Your task to perform on an android device: find snoozed emails in the gmail app Image 0: 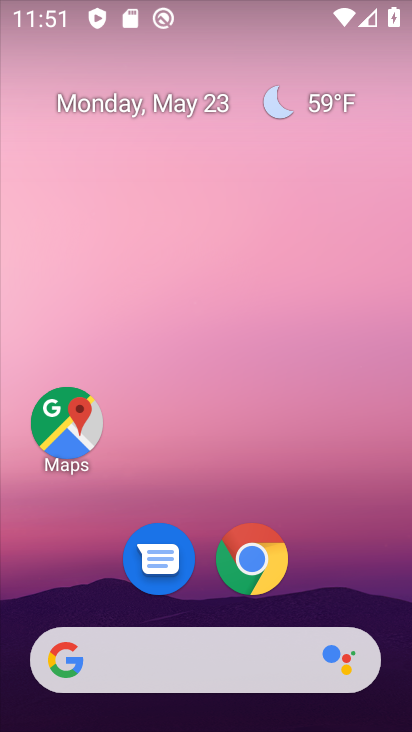
Step 0: drag from (359, 588) to (272, 55)
Your task to perform on an android device: find snoozed emails in the gmail app Image 1: 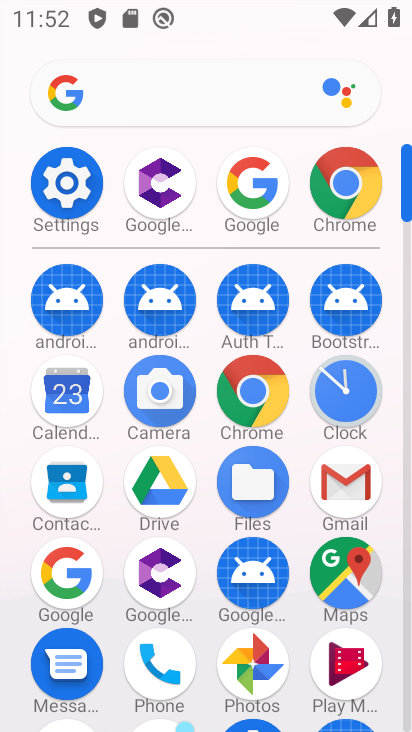
Step 1: click (336, 503)
Your task to perform on an android device: find snoozed emails in the gmail app Image 2: 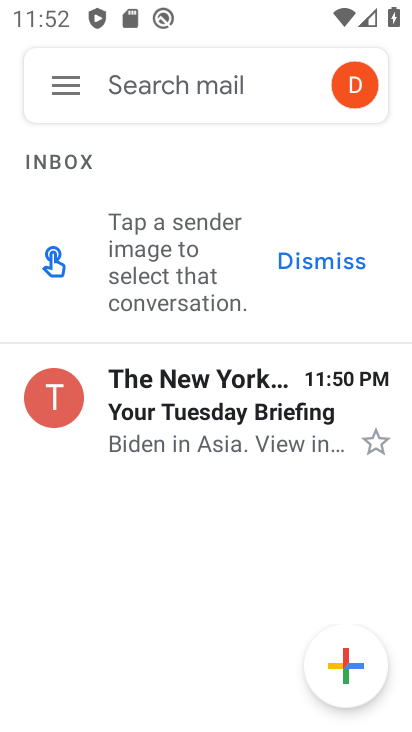
Step 2: click (63, 77)
Your task to perform on an android device: find snoozed emails in the gmail app Image 3: 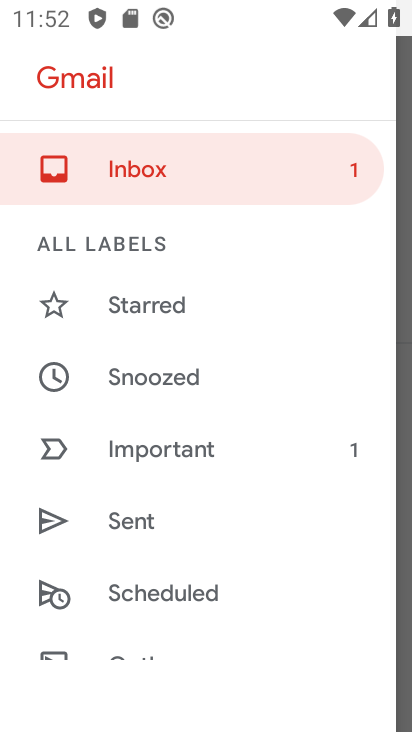
Step 3: drag from (144, 571) to (188, 438)
Your task to perform on an android device: find snoozed emails in the gmail app Image 4: 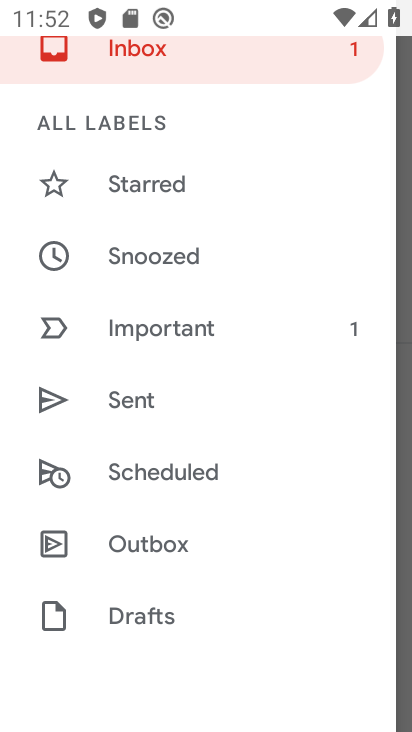
Step 4: click (191, 261)
Your task to perform on an android device: find snoozed emails in the gmail app Image 5: 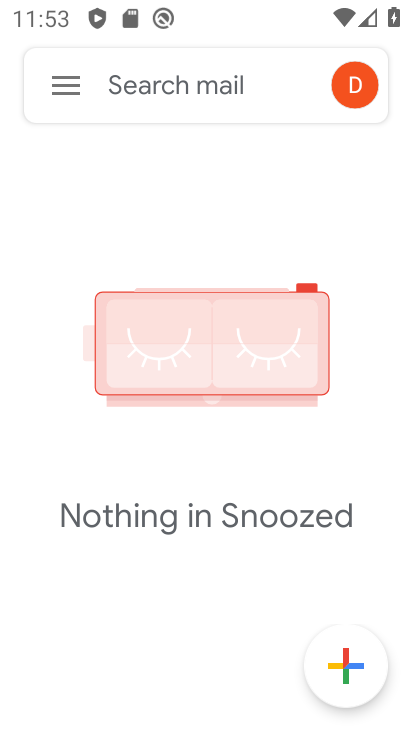
Step 5: task complete